Your task to perform on an android device: What's the weather? Image 0: 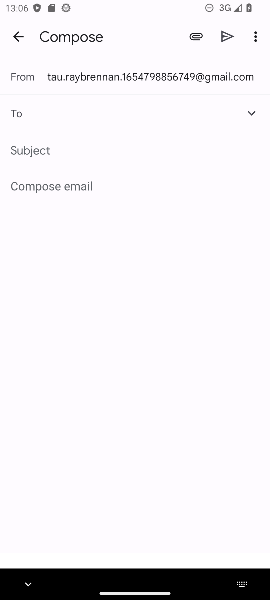
Step 0: press home button
Your task to perform on an android device: What's the weather? Image 1: 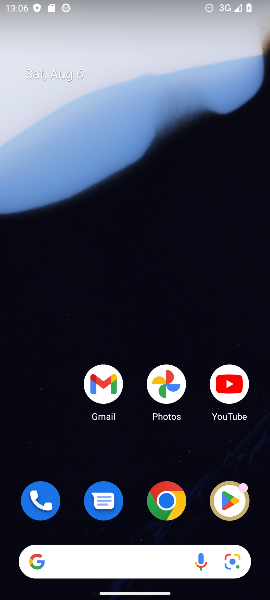
Step 1: click (270, 462)
Your task to perform on an android device: What's the weather? Image 2: 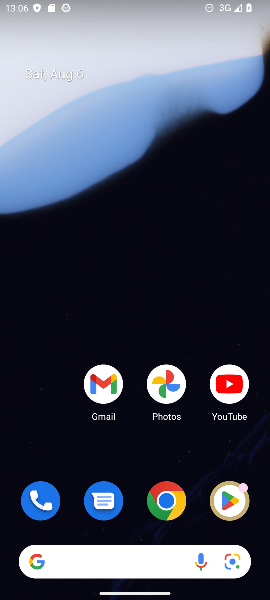
Step 2: click (136, 516)
Your task to perform on an android device: What's the weather? Image 3: 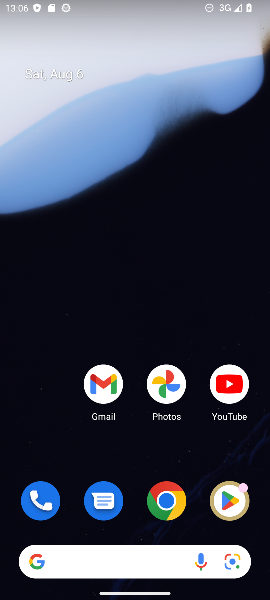
Step 3: click (114, 557)
Your task to perform on an android device: What's the weather? Image 4: 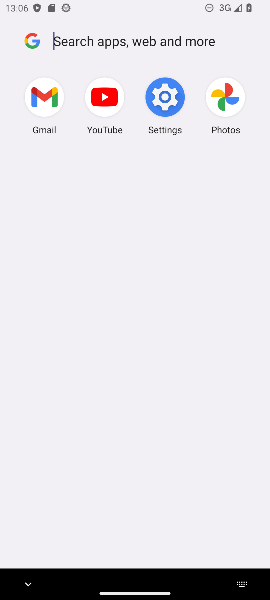
Step 4: type "weather"
Your task to perform on an android device: What's the weather? Image 5: 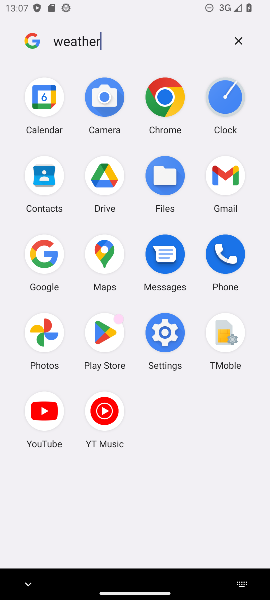
Step 5: click (39, 263)
Your task to perform on an android device: What's the weather? Image 6: 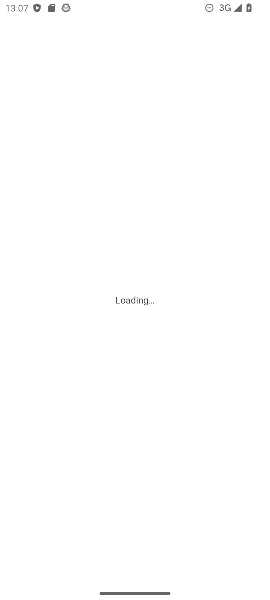
Step 6: task complete